Your task to perform on an android device: turn off javascript in the chrome app Image 0: 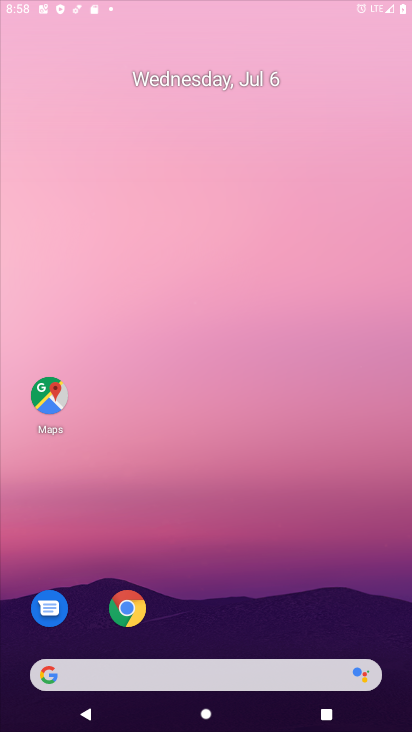
Step 0: drag from (346, 590) to (218, 14)
Your task to perform on an android device: turn off javascript in the chrome app Image 1: 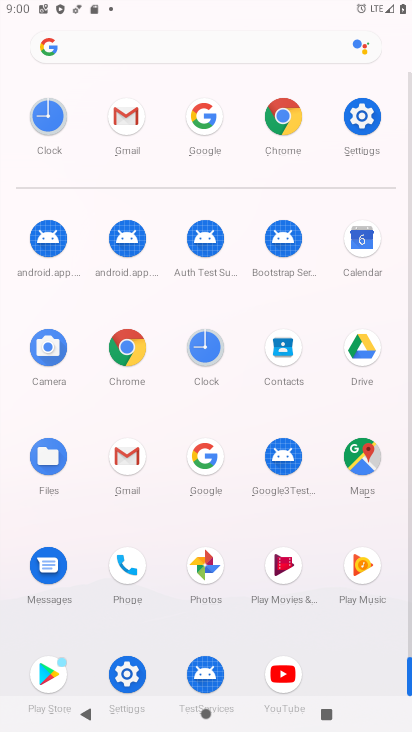
Step 1: click (278, 119)
Your task to perform on an android device: turn off javascript in the chrome app Image 2: 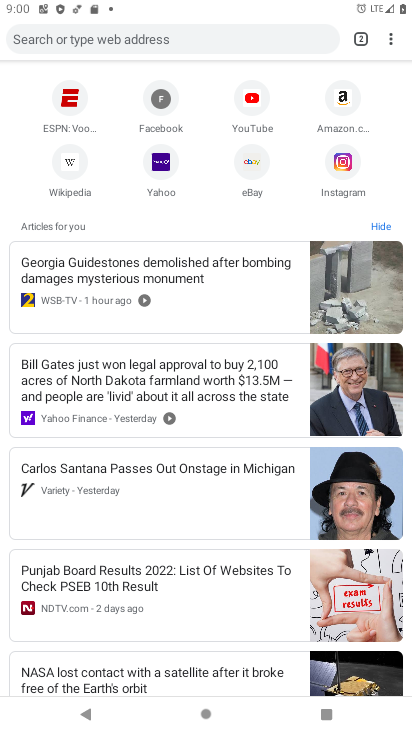
Step 2: click (386, 35)
Your task to perform on an android device: turn off javascript in the chrome app Image 3: 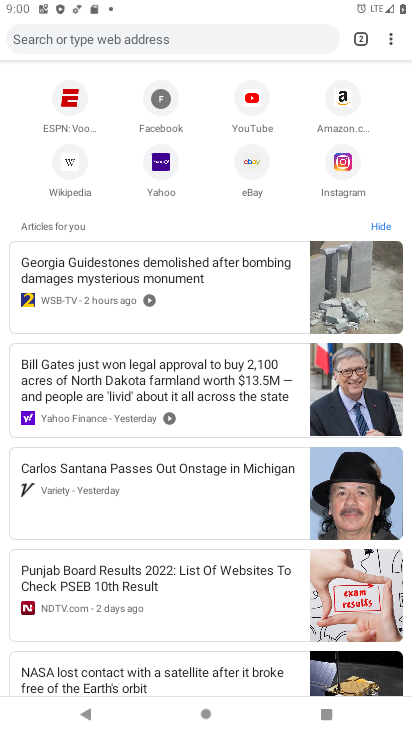
Step 3: click (394, 35)
Your task to perform on an android device: turn off javascript in the chrome app Image 4: 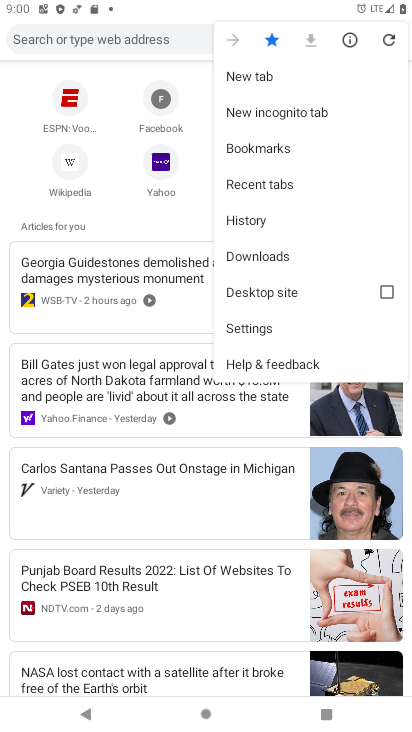
Step 4: click (261, 322)
Your task to perform on an android device: turn off javascript in the chrome app Image 5: 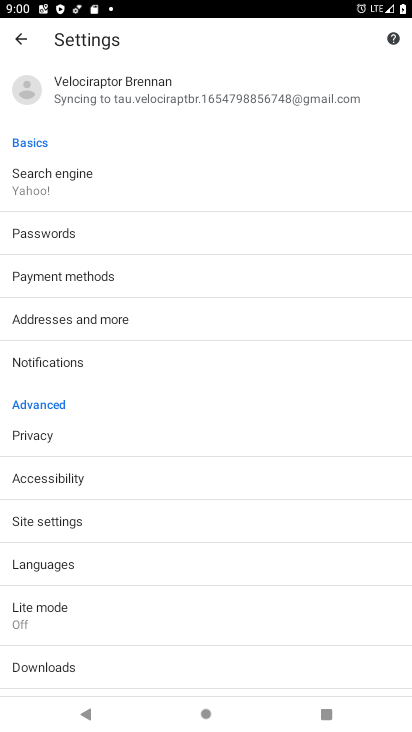
Step 5: click (82, 520)
Your task to perform on an android device: turn off javascript in the chrome app Image 6: 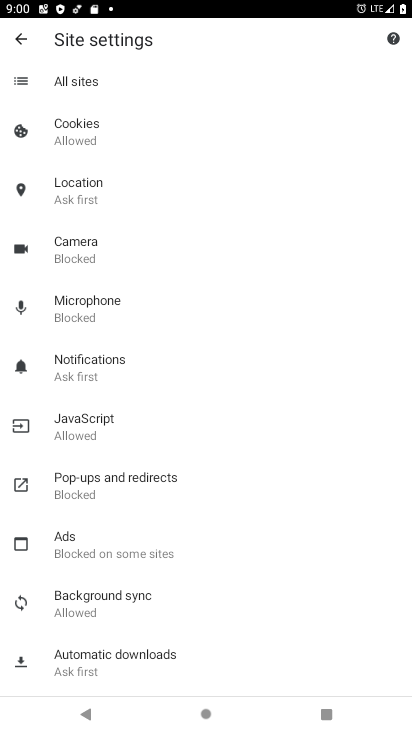
Step 6: click (120, 433)
Your task to perform on an android device: turn off javascript in the chrome app Image 7: 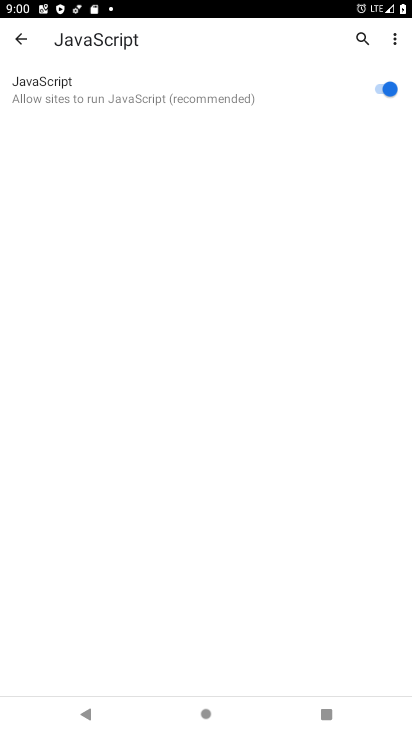
Step 7: click (375, 98)
Your task to perform on an android device: turn off javascript in the chrome app Image 8: 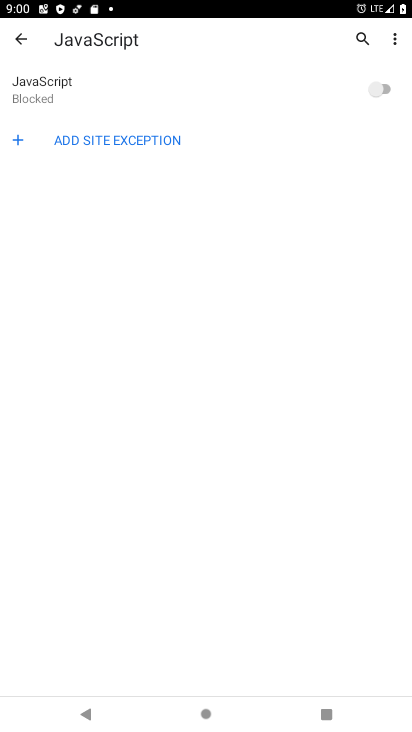
Step 8: task complete